Your task to perform on an android device: see creations saved in the google photos Image 0: 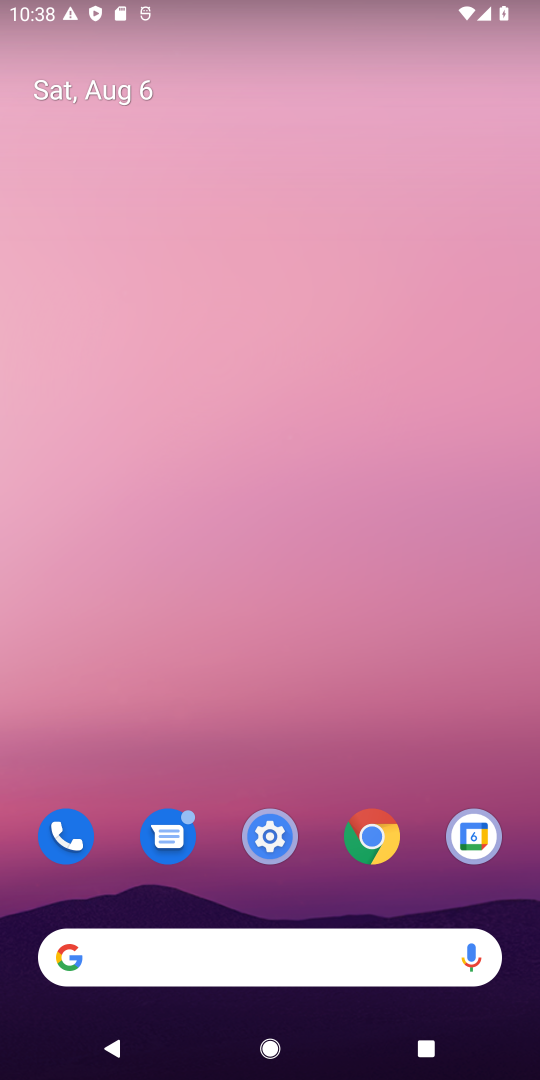
Step 0: drag from (221, 362) to (247, 184)
Your task to perform on an android device: see creations saved in the google photos Image 1: 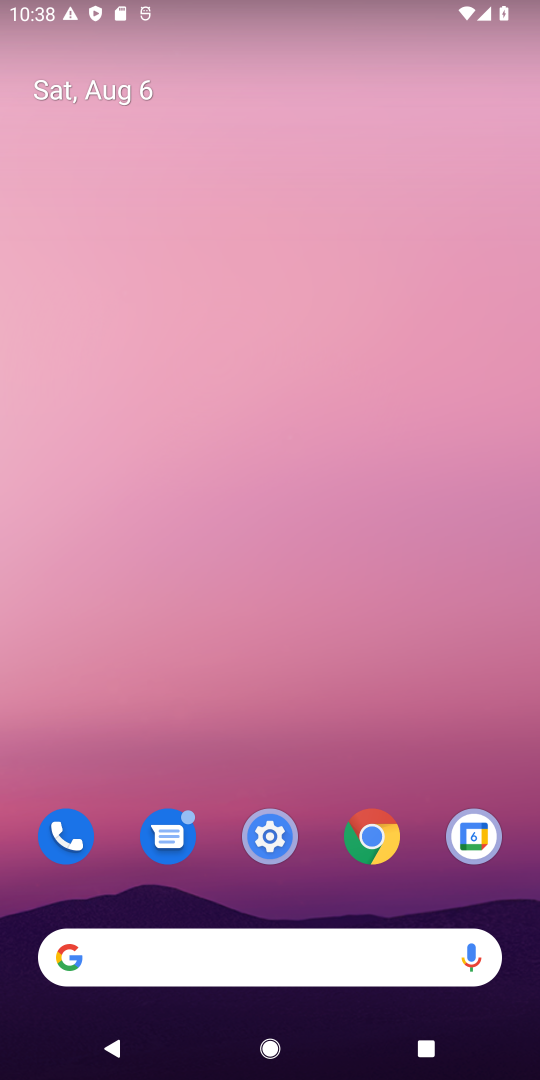
Step 1: drag from (266, 475) to (318, 141)
Your task to perform on an android device: see creations saved in the google photos Image 2: 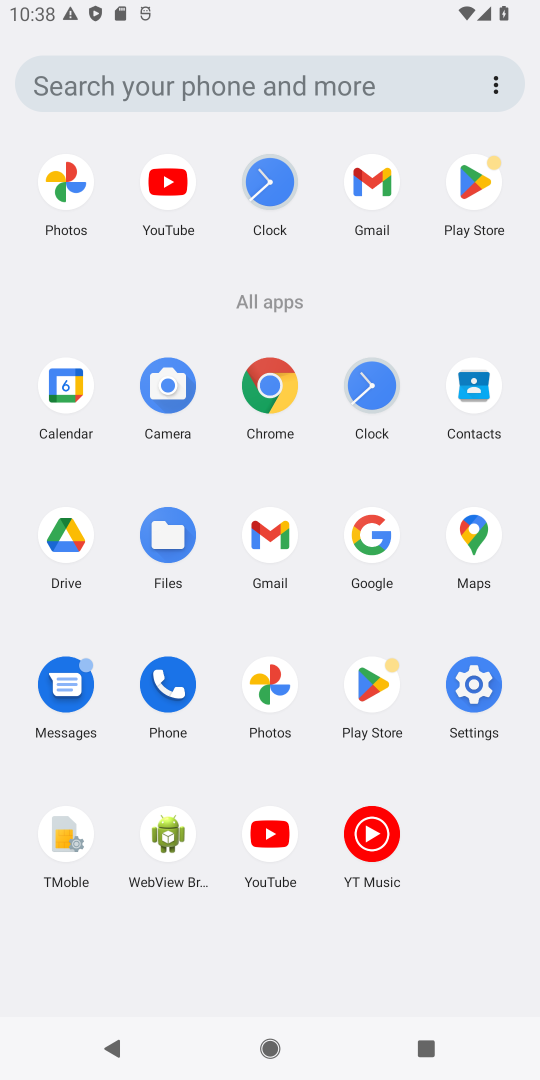
Step 2: click (277, 705)
Your task to perform on an android device: see creations saved in the google photos Image 3: 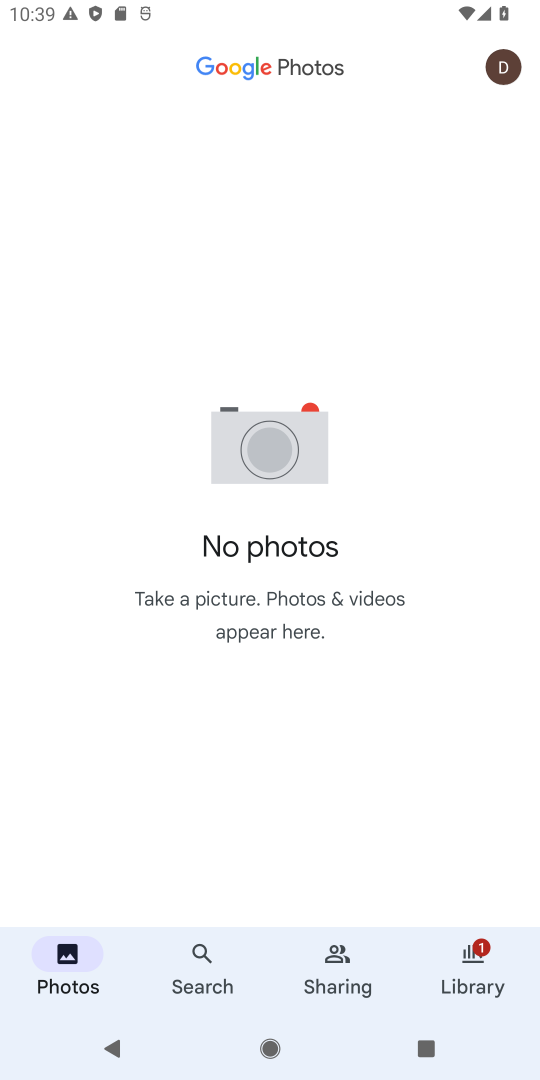
Step 3: click (483, 956)
Your task to perform on an android device: see creations saved in the google photos Image 4: 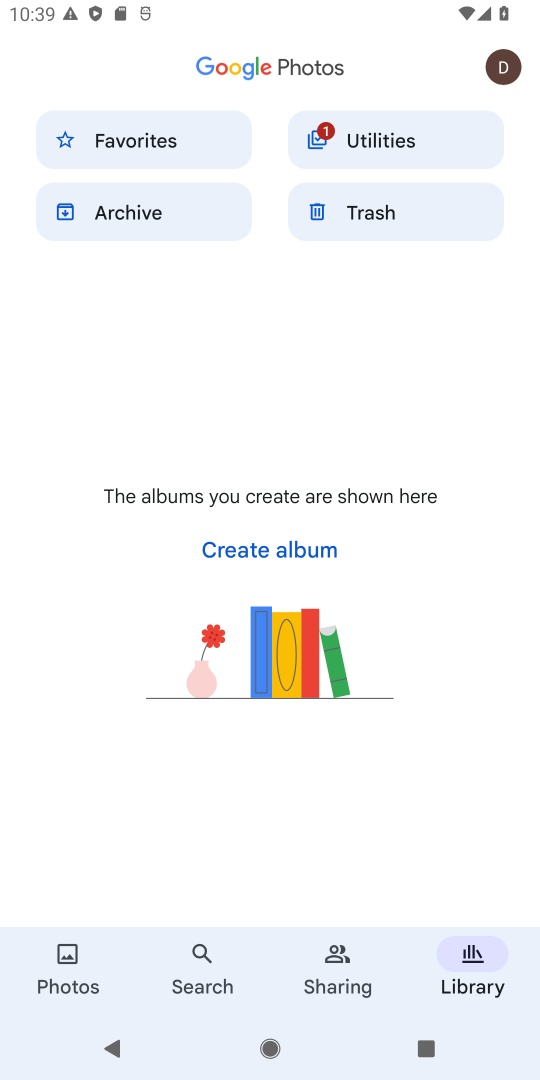
Step 4: click (197, 992)
Your task to perform on an android device: see creations saved in the google photos Image 5: 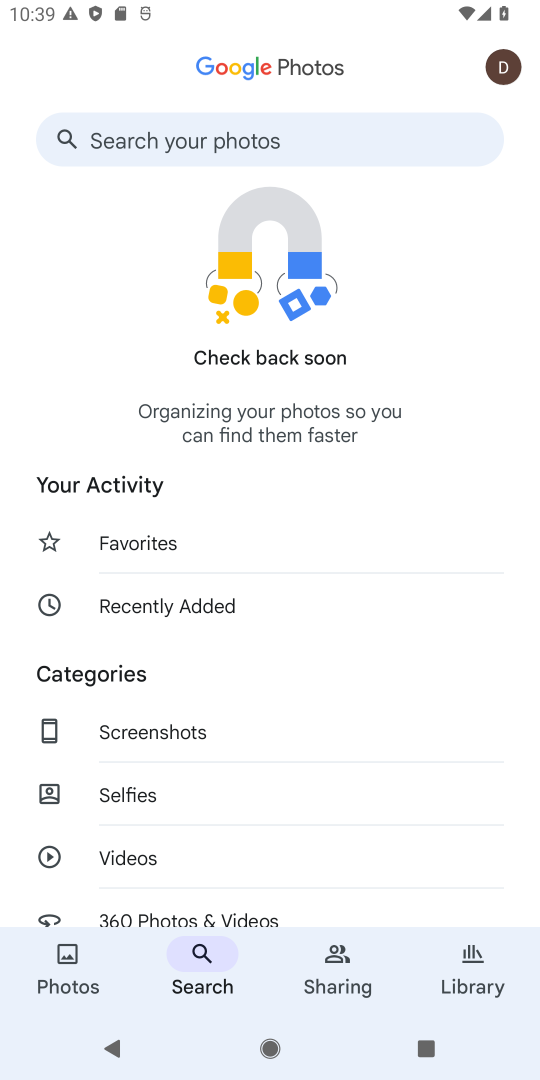
Step 5: drag from (158, 727) to (159, 473)
Your task to perform on an android device: see creations saved in the google photos Image 6: 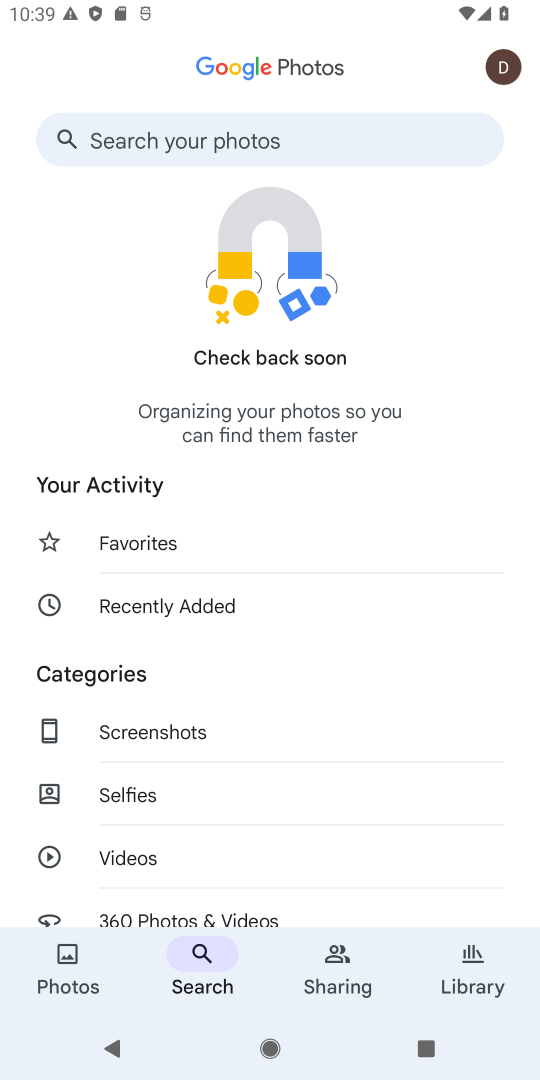
Step 6: drag from (189, 667) to (393, 176)
Your task to perform on an android device: see creations saved in the google photos Image 7: 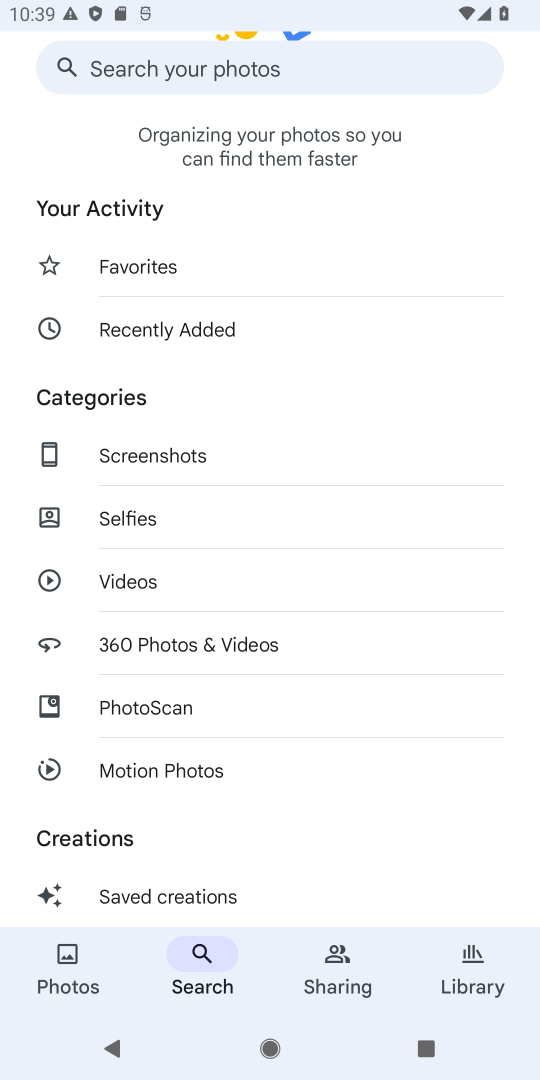
Step 7: click (201, 891)
Your task to perform on an android device: see creations saved in the google photos Image 8: 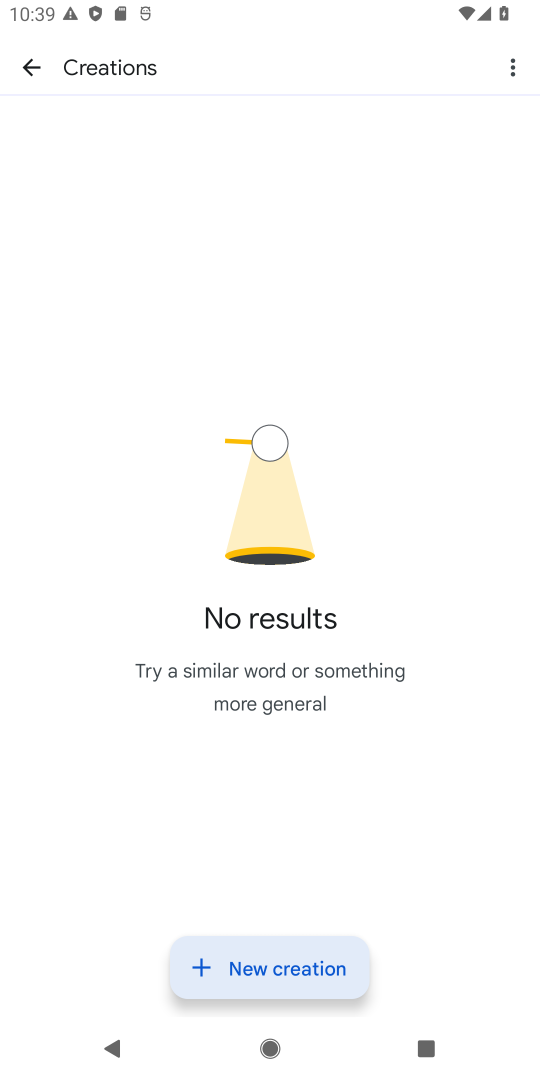
Step 8: task complete